Your task to perform on an android device: Open calendar and show me the fourth week of next month Image 0: 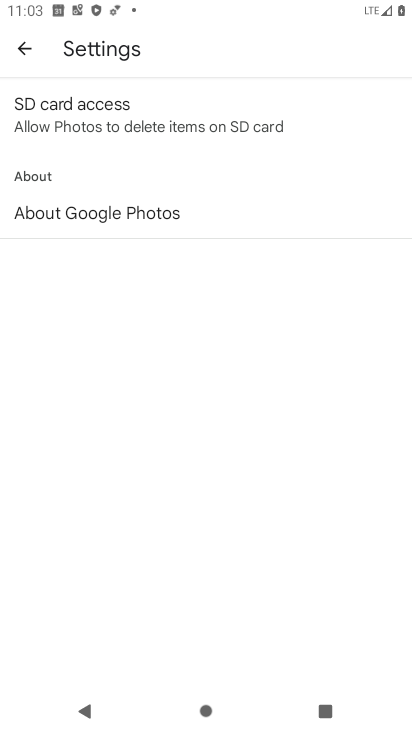
Step 0: press home button
Your task to perform on an android device: Open calendar and show me the fourth week of next month Image 1: 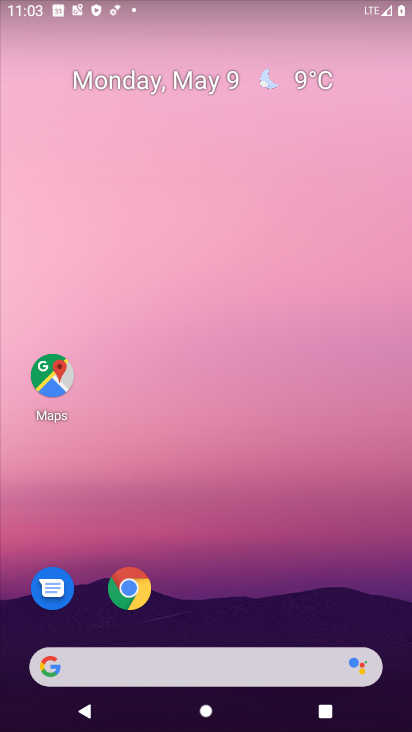
Step 1: drag from (194, 657) to (315, 87)
Your task to perform on an android device: Open calendar and show me the fourth week of next month Image 2: 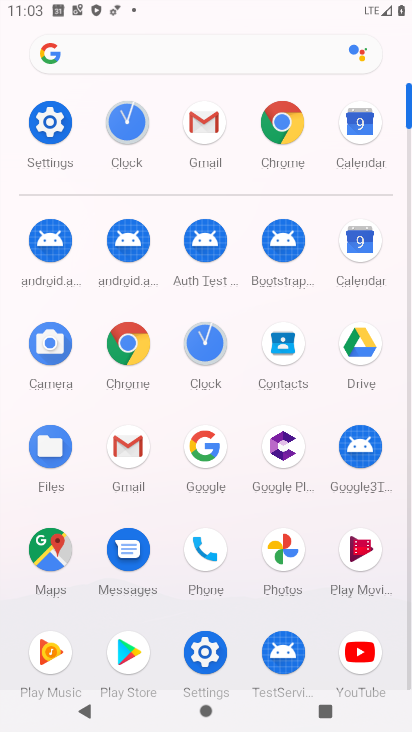
Step 2: click (359, 128)
Your task to perform on an android device: Open calendar and show me the fourth week of next month Image 3: 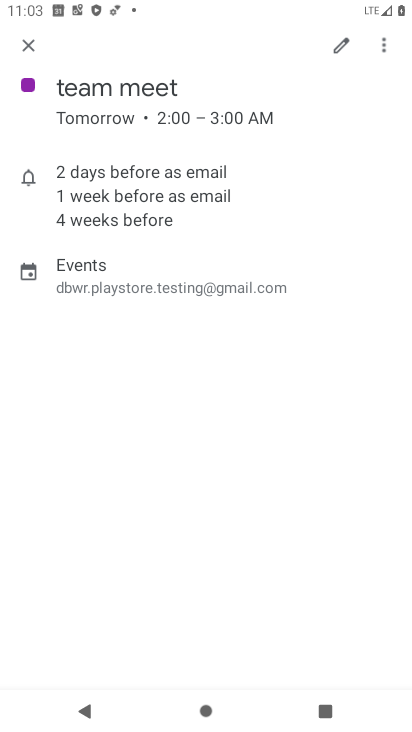
Step 3: click (26, 39)
Your task to perform on an android device: Open calendar and show me the fourth week of next month Image 4: 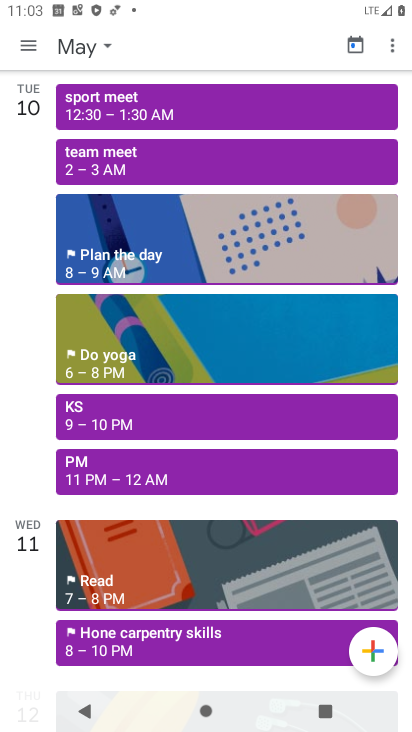
Step 4: click (89, 49)
Your task to perform on an android device: Open calendar and show me the fourth week of next month Image 5: 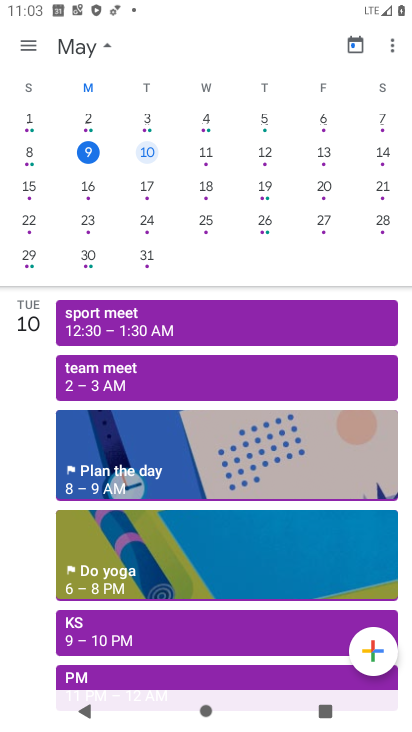
Step 5: drag from (379, 181) to (54, 178)
Your task to perform on an android device: Open calendar and show me the fourth week of next month Image 6: 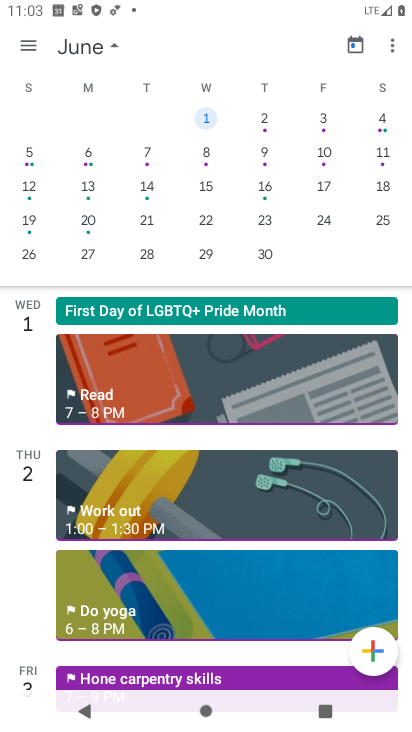
Step 6: click (30, 224)
Your task to perform on an android device: Open calendar and show me the fourth week of next month Image 7: 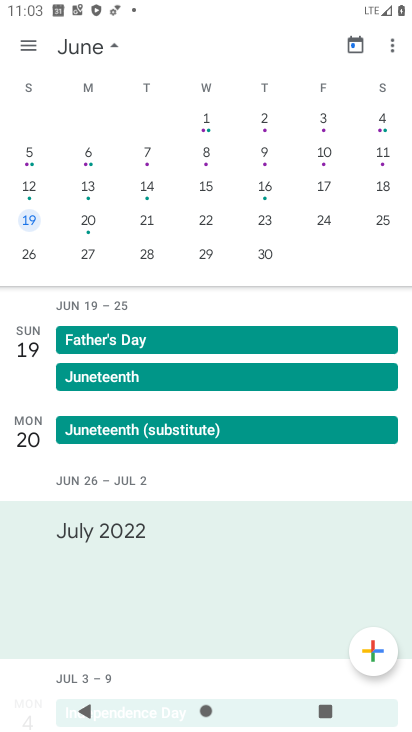
Step 7: click (27, 48)
Your task to perform on an android device: Open calendar and show me the fourth week of next month Image 8: 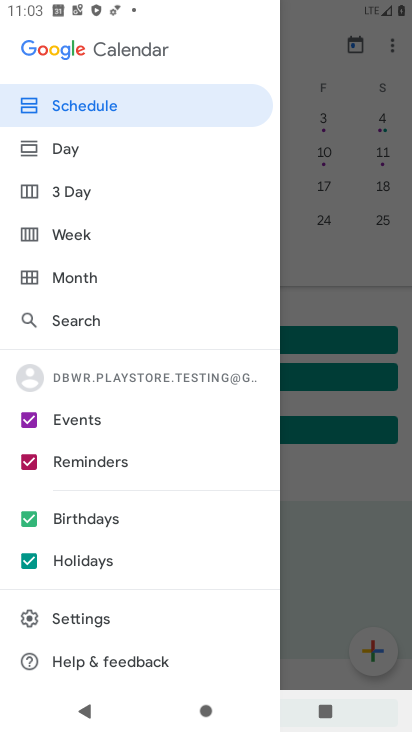
Step 8: click (80, 237)
Your task to perform on an android device: Open calendar and show me the fourth week of next month Image 9: 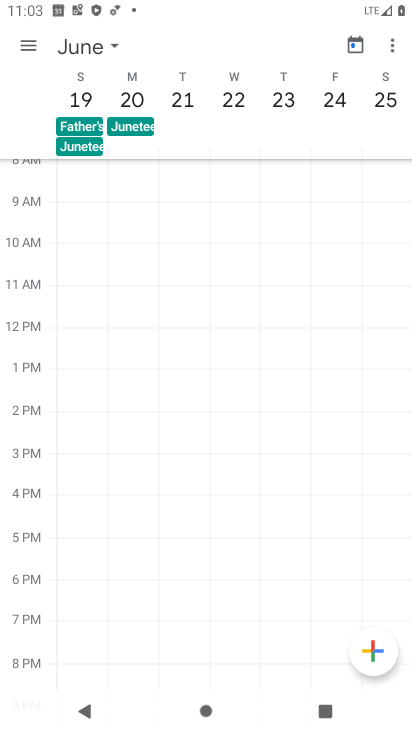
Step 9: click (30, 40)
Your task to perform on an android device: Open calendar and show me the fourth week of next month Image 10: 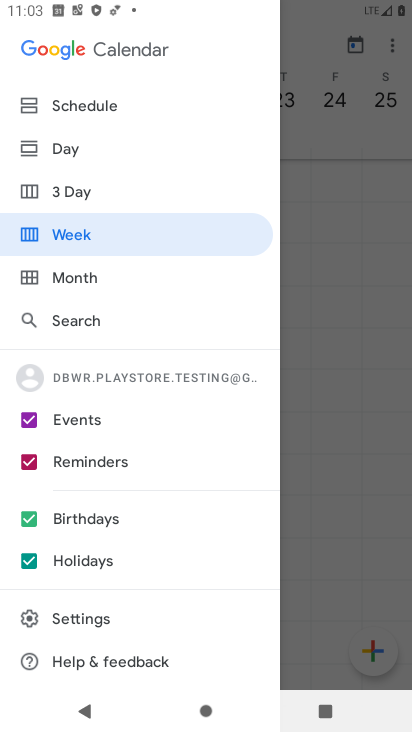
Step 10: click (85, 105)
Your task to perform on an android device: Open calendar and show me the fourth week of next month Image 11: 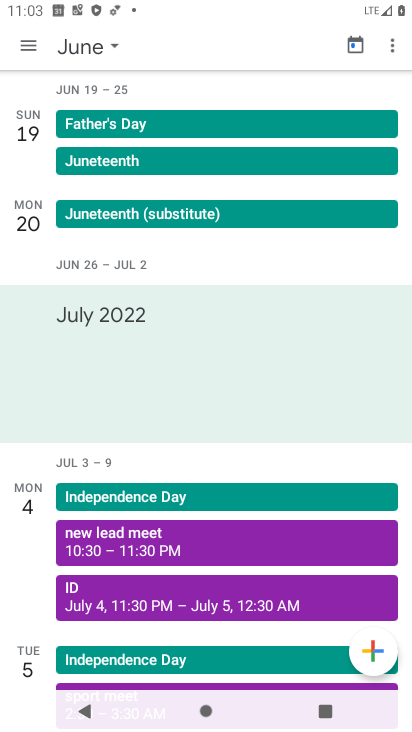
Step 11: click (28, 49)
Your task to perform on an android device: Open calendar and show me the fourth week of next month Image 12: 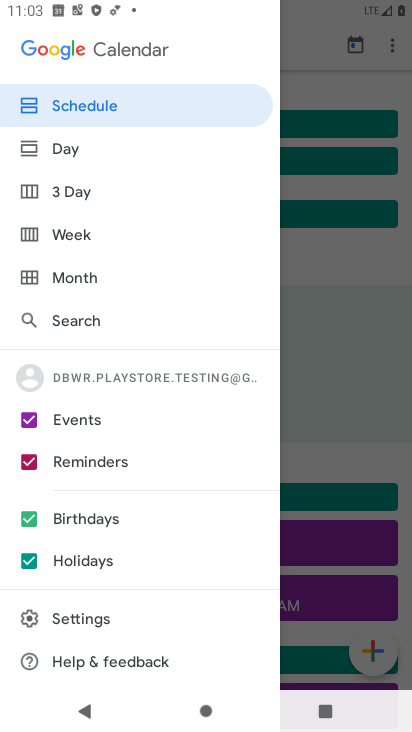
Step 12: click (74, 237)
Your task to perform on an android device: Open calendar and show me the fourth week of next month Image 13: 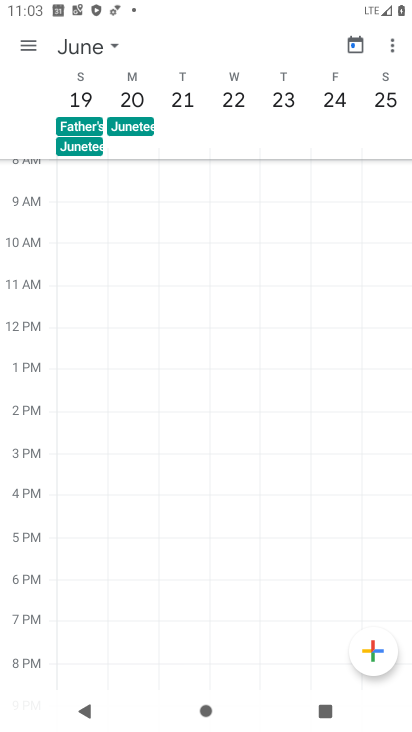
Step 13: task complete